Your task to perform on an android device: See recent photos Image 0: 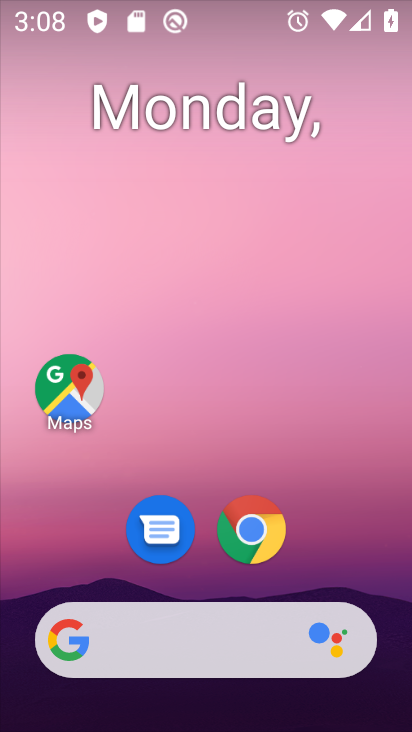
Step 0: drag from (208, 582) to (271, 93)
Your task to perform on an android device: See recent photos Image 1: 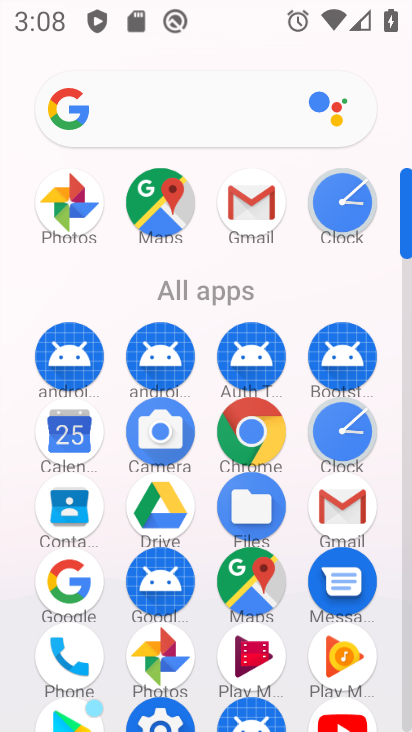
Step 1: click (165, 653)
Your task to perform on an android device: See recent photos Image 2: 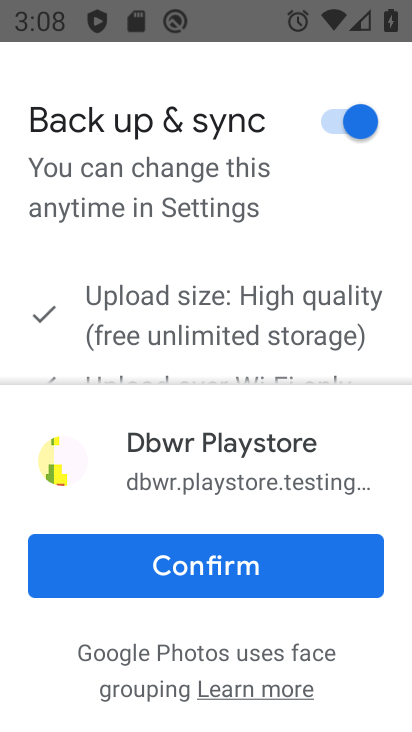
Step 2: click (144, 567)
Your task to perform on an android device: See recent photos Image 3: 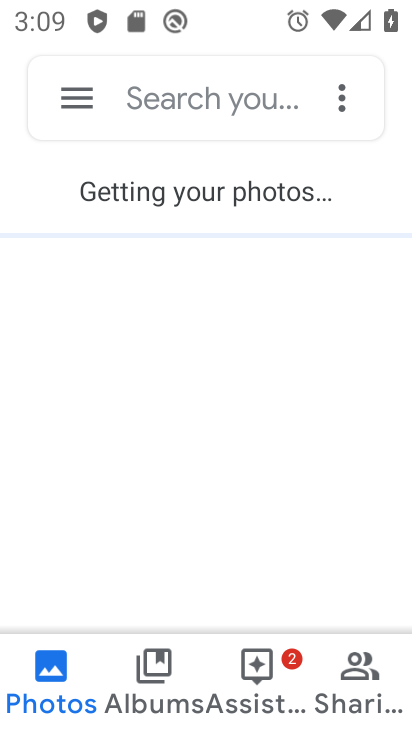
Step 3: drag from (136, 393) to (147, 189)
Your task to perform on an android device: See recent photos Image 4: 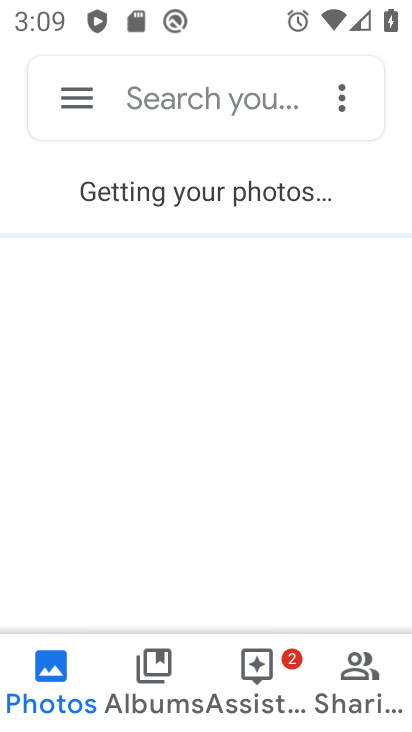
Step 4: click (349, 113)
Your task to perform on an android device: See recent photos Image 5: 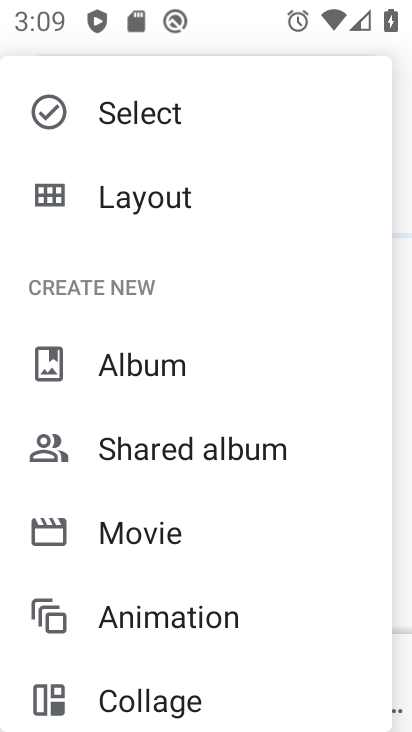
Step 5: click (402, 495)
Your task to perform on an android device: See recent photos Image 6: 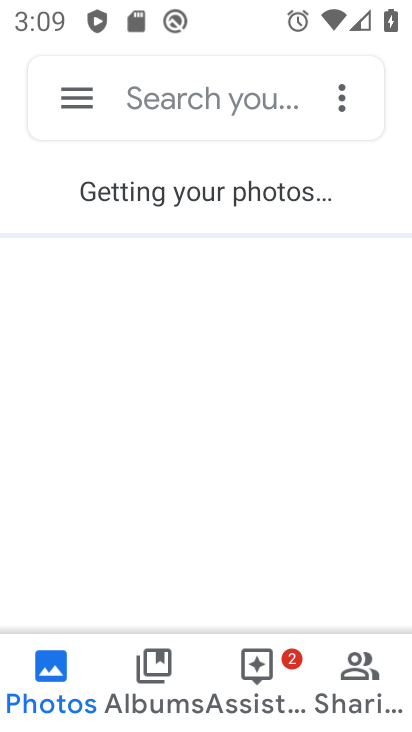
Step 6: click (220, 408)
Your task to perform on an android device: See recent photos Image 7: 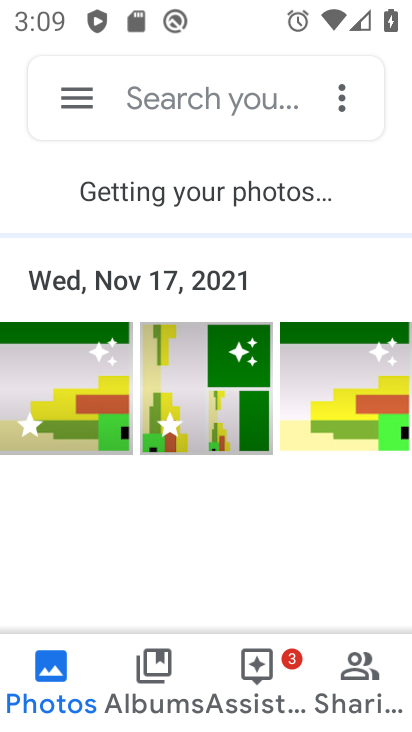
Step 7: click (97, 382)
Your task to perform on an android device: See recent photos Image 8: 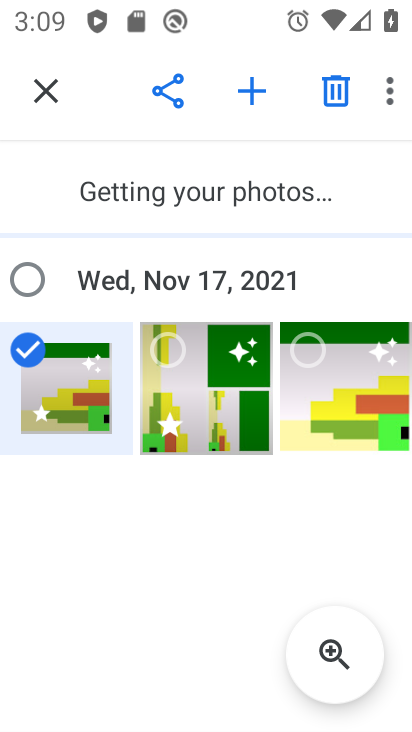
Step 8: click (55, 112)
Your task to perform on an android device: See recent photos Image 9: 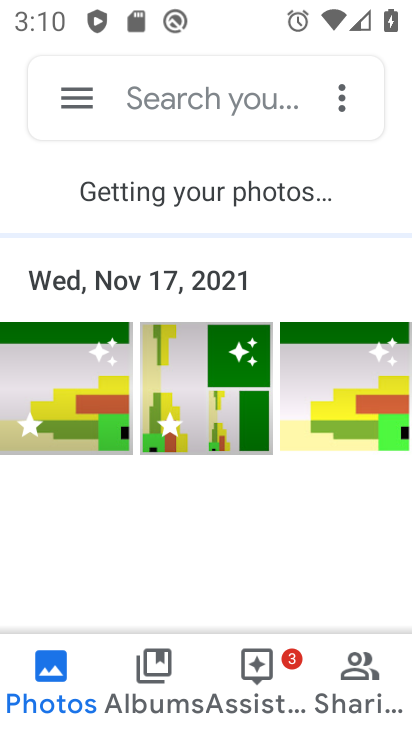
Step 9: task complete